Your task to perform on an android device: open a new tab in the chrome app Image 0: 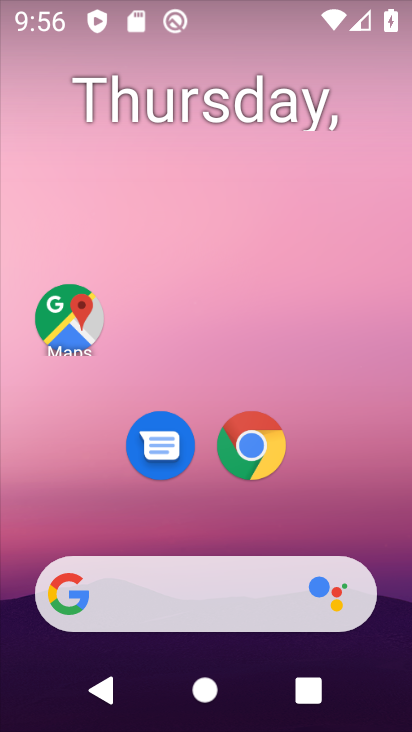
Step 0: click (255, 444)
Your task to perform on an android device: open a new tab in the chrome app Image 1: 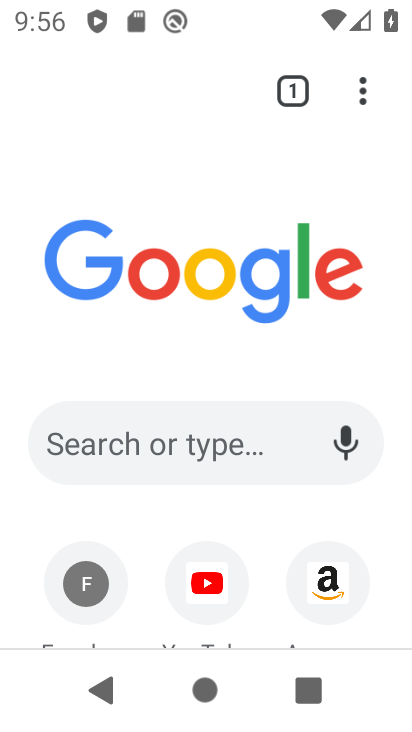
Step 1: click (358, 98)
Your task to perform on an android device: open a new tab in the chrome app Image 2: 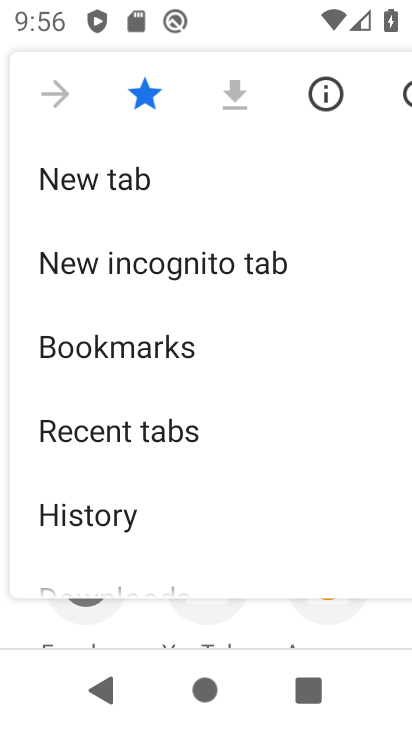
Step 2: click (113, 188)
Your task to perform on an android device: open a new tab in the chrome app Image 3: 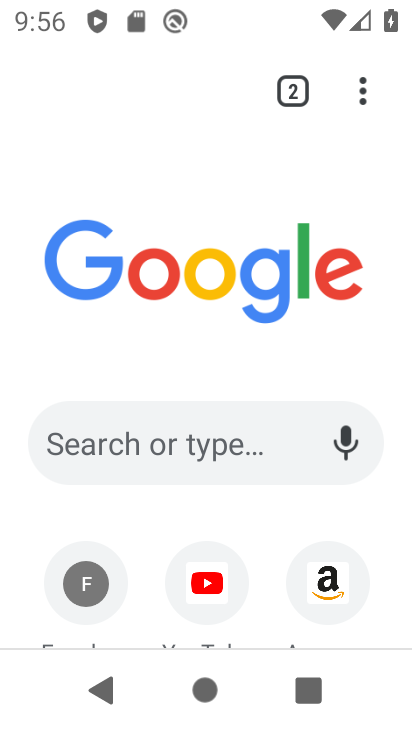
Step 3: task complete